Your task to perform on an android device: Go to wifi settings Image 0: 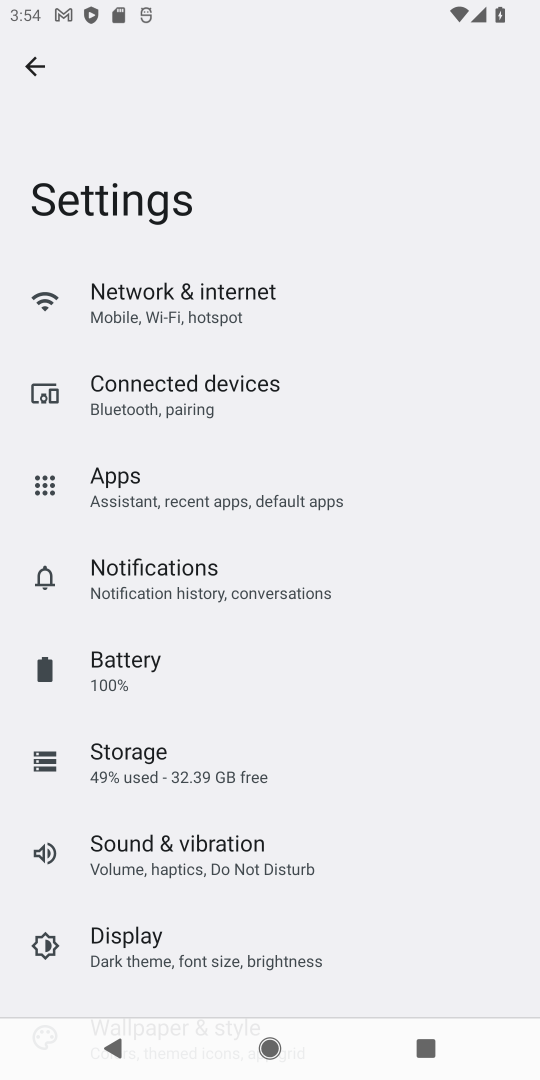
Step 0: press home button
Your task to perform on an android device: Go to wifi settings Image 1: 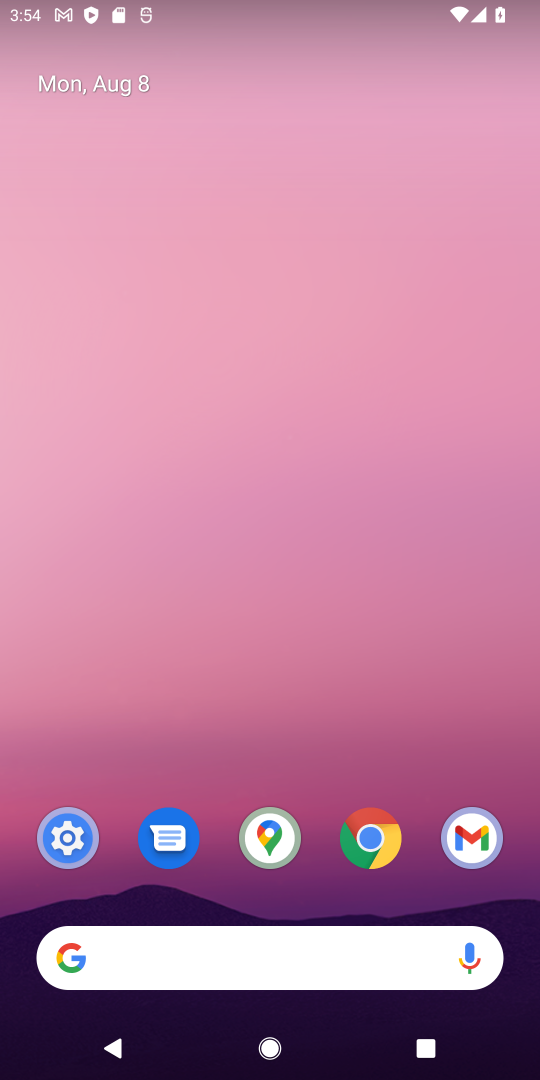
Step 1: drag from (254, 959) to (300, 464)
Your task to perform on an android device: Go to wifi settings Image 2: 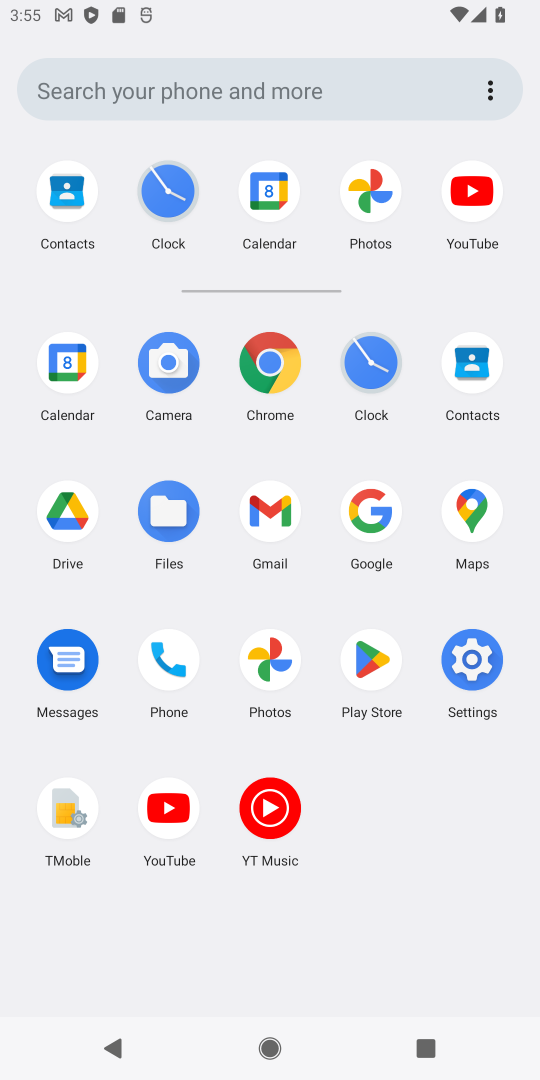
Step 2: click (473, 659)
Your task to perform on an android device: Go to wifi settings Image 3: 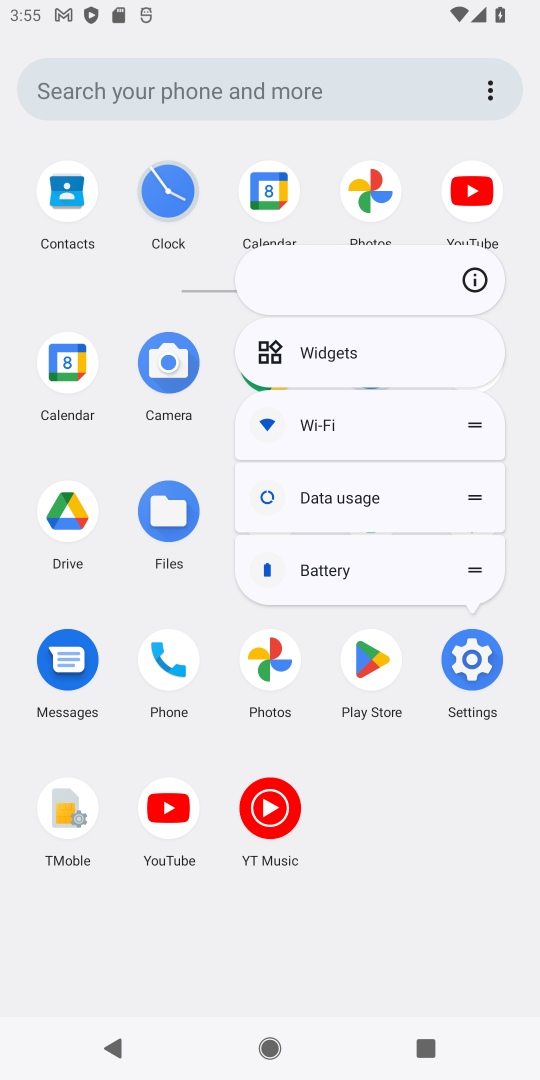
Step 3: click (473, 659)
Your task to perform on an android device: Go to wifi settings Image 4: 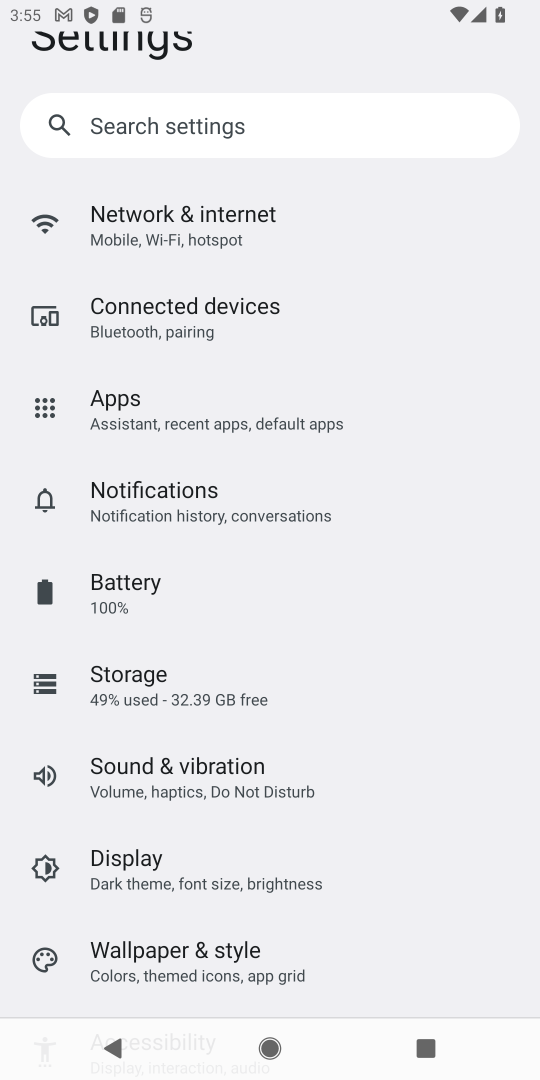
Step 4: click (205, 222)
Your task to perform on an android device: Go to wifi settings Image 5: 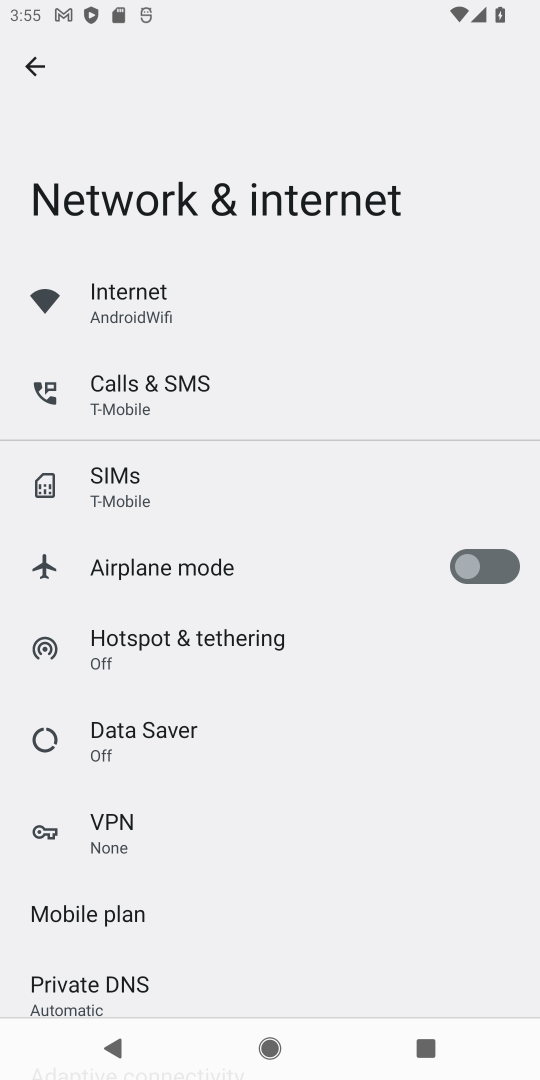
Step 5: click (138, 309)
Your task to perform on an android device: Go to wifi settings Image 6: 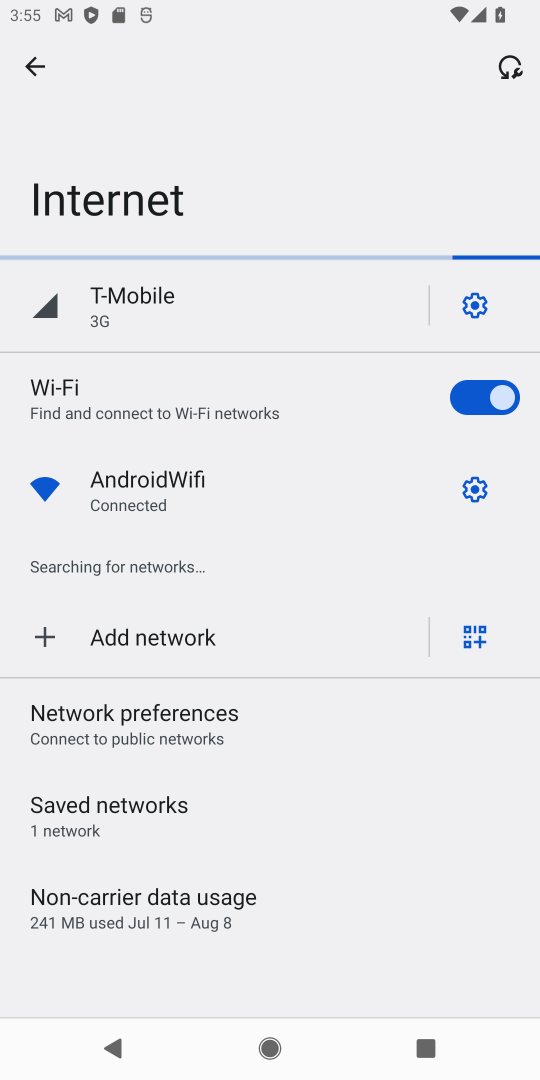
Step 6: click (474, 495)
Your task to perform on an android device: Go to wifi settings Image 7: 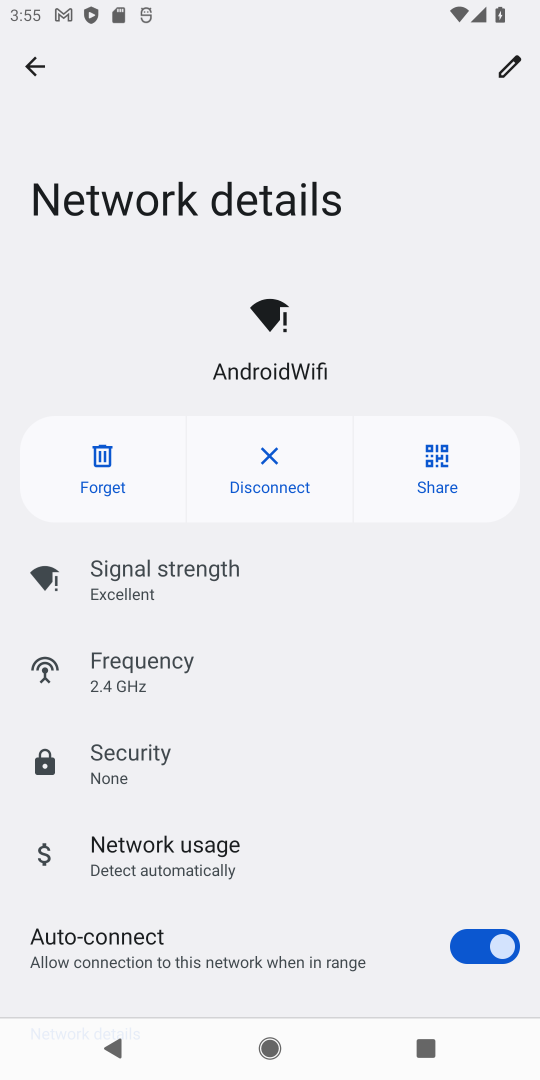
Step 7: task complete